Your task to perform on an android device: delete the emails in spam in the gmail app Image 0: 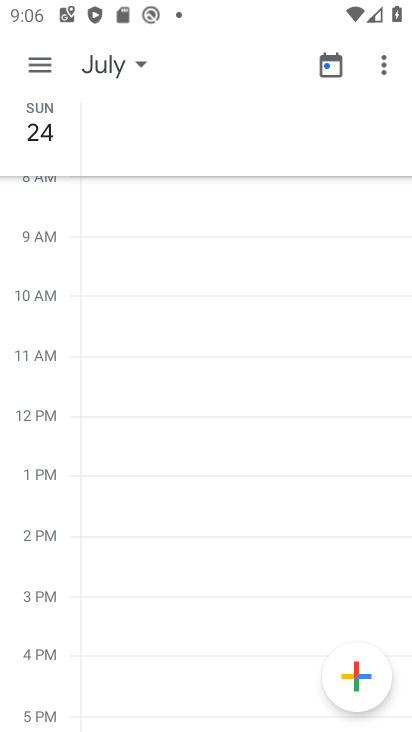
Step 0: press home button
Your task to perform on an android device: delete the emails in spam in the gmail app Image 1: 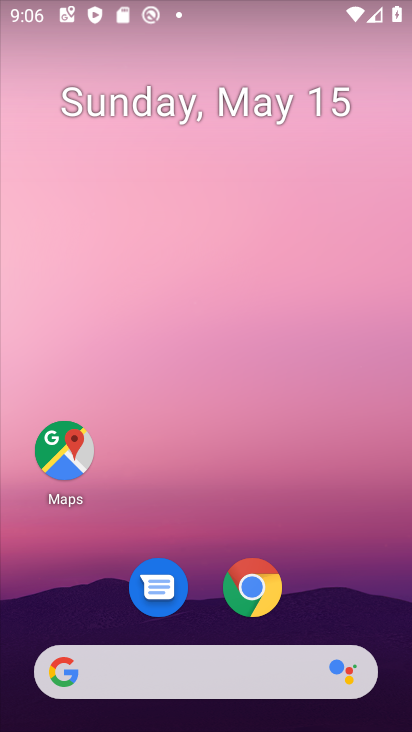
Step 1: click (384, 674)
Your task to perform on an android device: delete the emails in spam in the gmail app Image 2: 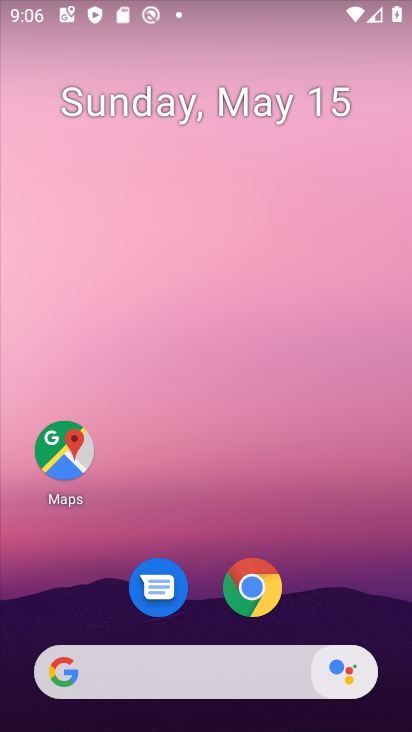
Step 2: drag from (366, 370) to (283, 69)
Your task to perform on an android device: delete the emails in spam in the gmail app Image 3: 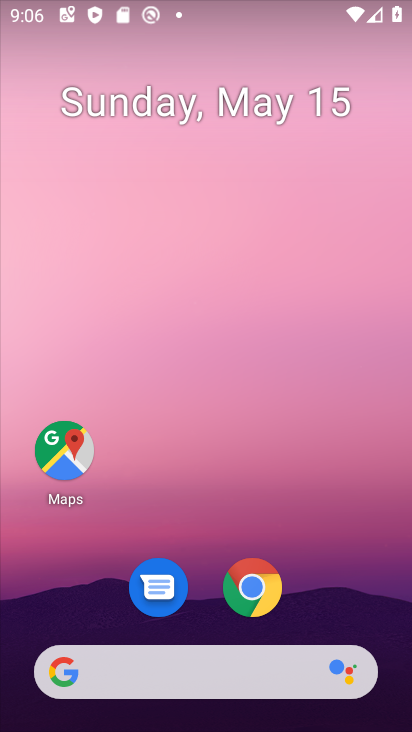
Step 3: drag from (392, 617) to (329, 8)
Your task to perform on an android device: delete the emails in spam in the gmail app Image 4: 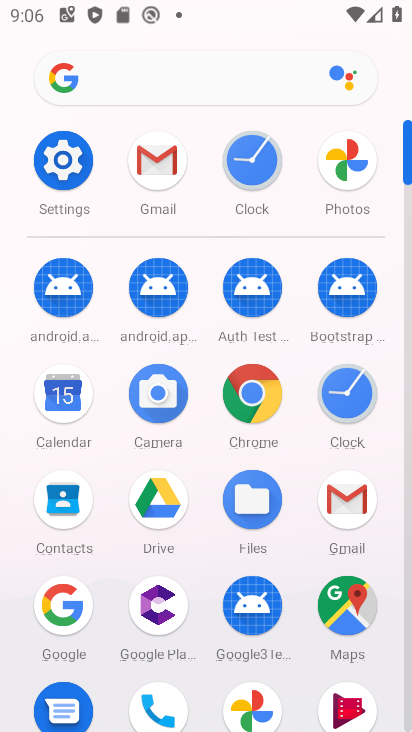
Step 4: click (345, 505)
Your task to perform on an android device: delete the emails in spam in the gmail app Image 5: 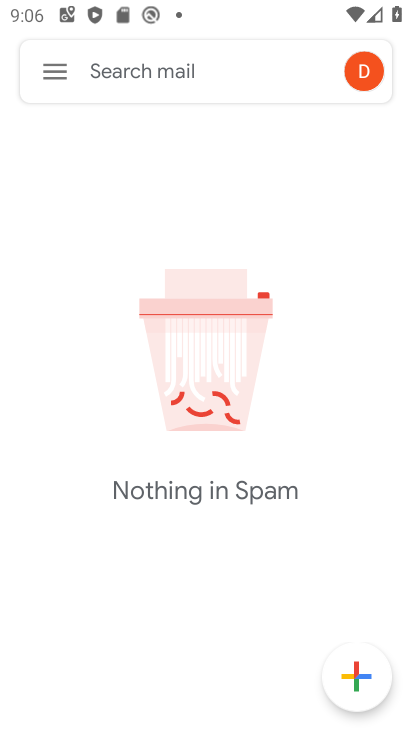
Step 5: click (55, 78)
Your task to perform on an android device: delete the emails in spam in the gmail app Image 6: 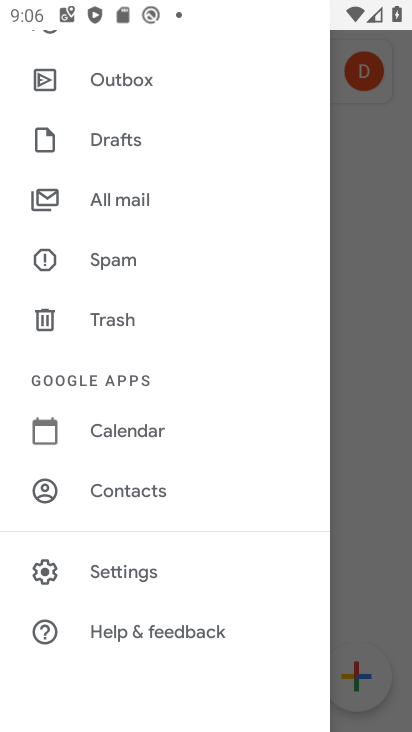
Step 6: click (154, 268)
Your task to perform on an android device: delete the emails in spam in the gmail app Image 7: 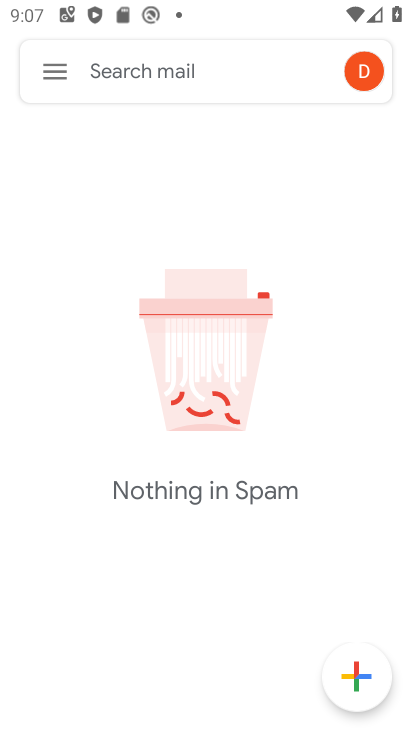
Step 7: task complete